Your task to perform on an android device: Open settings Image 0: 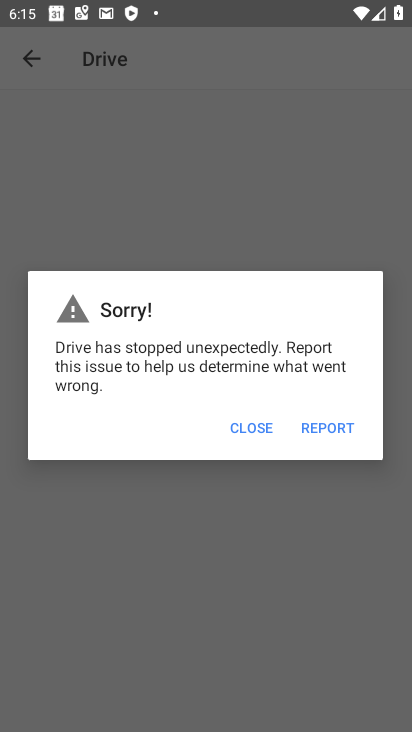
Step 0: press home button
Your task to perform on an android device: Open settings Image 1: 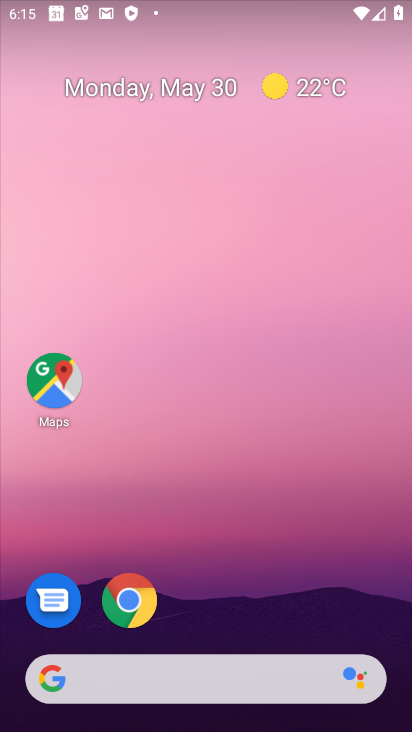
Step 1: drag from (258, 622) to (244, 172)
Your task to perform on an android device: Open settings Image 2: 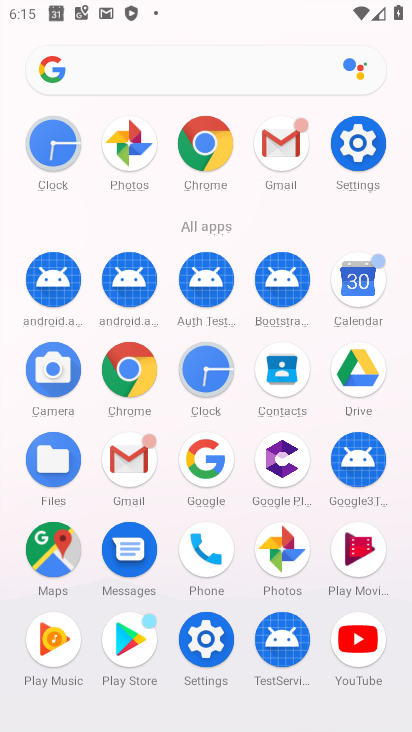
Step 2: click (367, 161)
Your task to perform on an android device: Open settings Image 3: 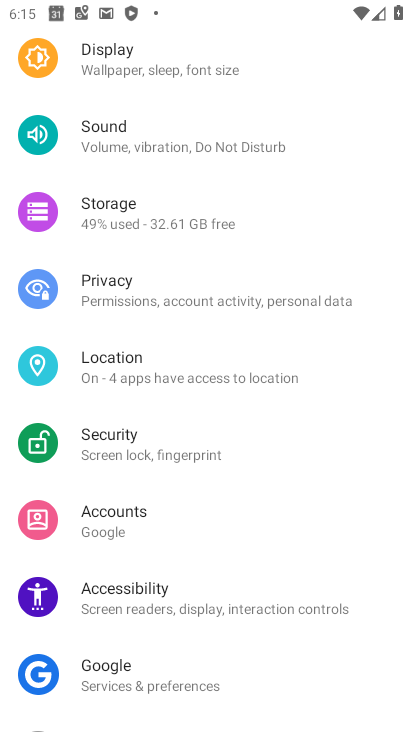
Step 3: task complete